Your task to perform on an android device: uninstall "Grab" Image 0: 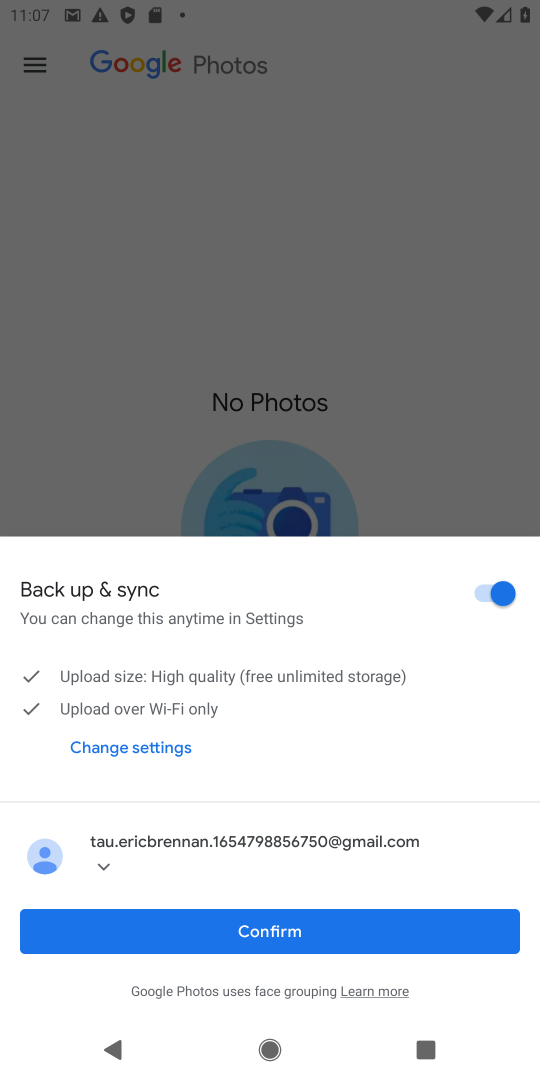
Step 0: press home button
Your task to perform on an android device: uninstall "Grab" Image 1: 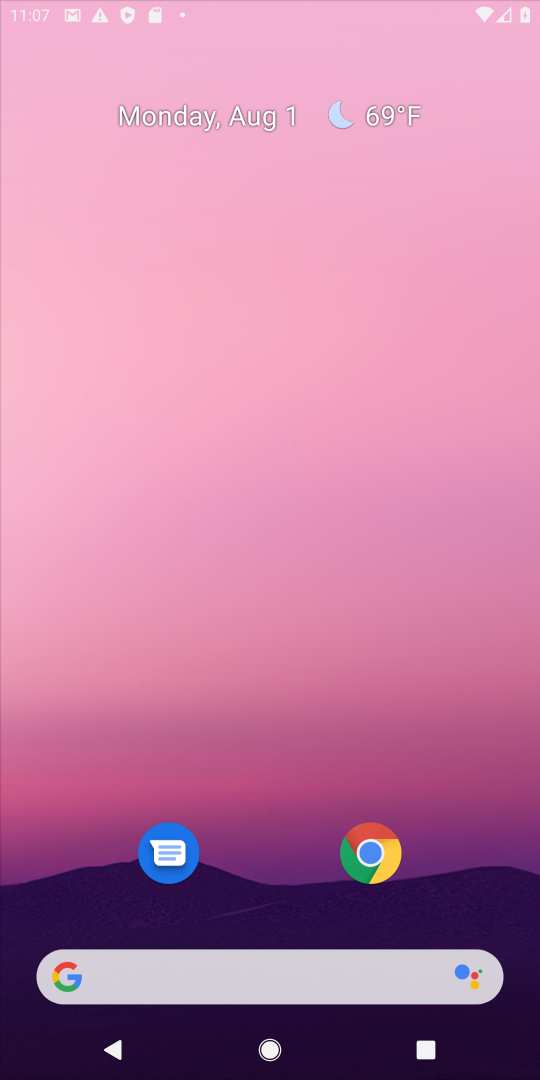
Step 1: drag from (369, 835) to (208, 104)
Your task to perform on an android device: uninstall "Grab" Image 2: 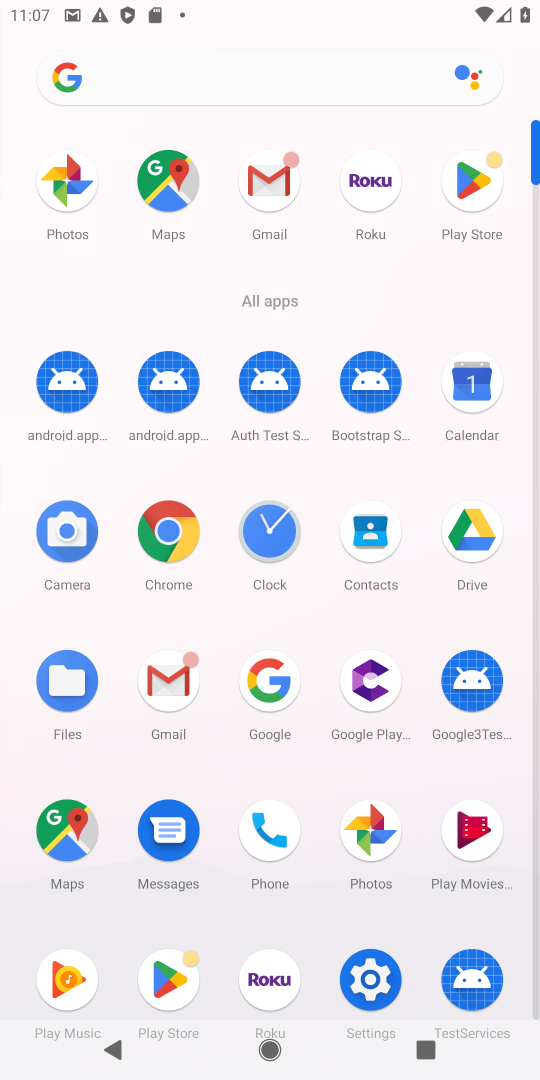
Step 2: click (467, 204)
Your task to perform on an android device: uninstall "Grab" Image 3: 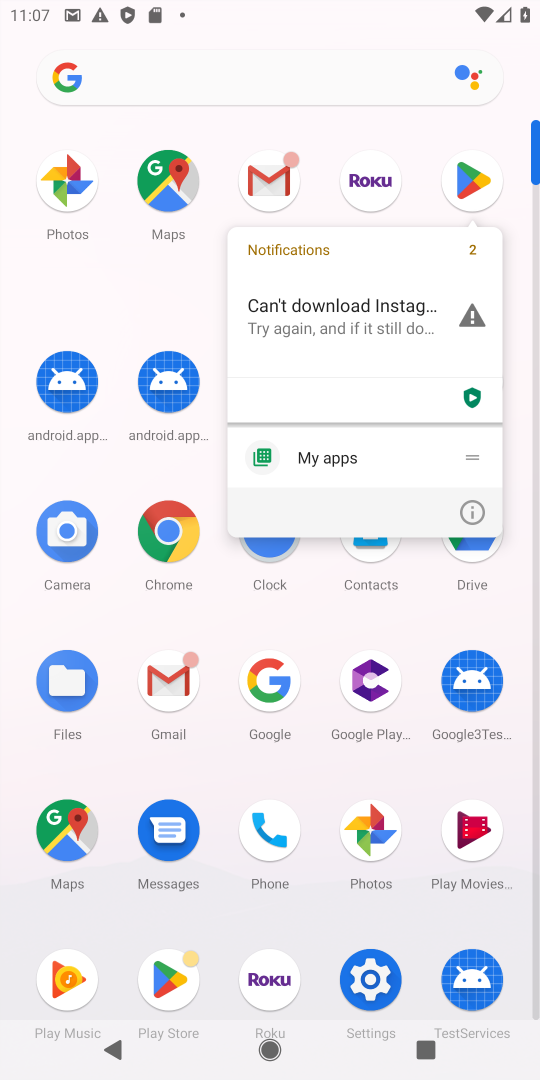
Step 3: click (454, 203)
Your task to perform on an android device: uninstall "Grab" Image 4: 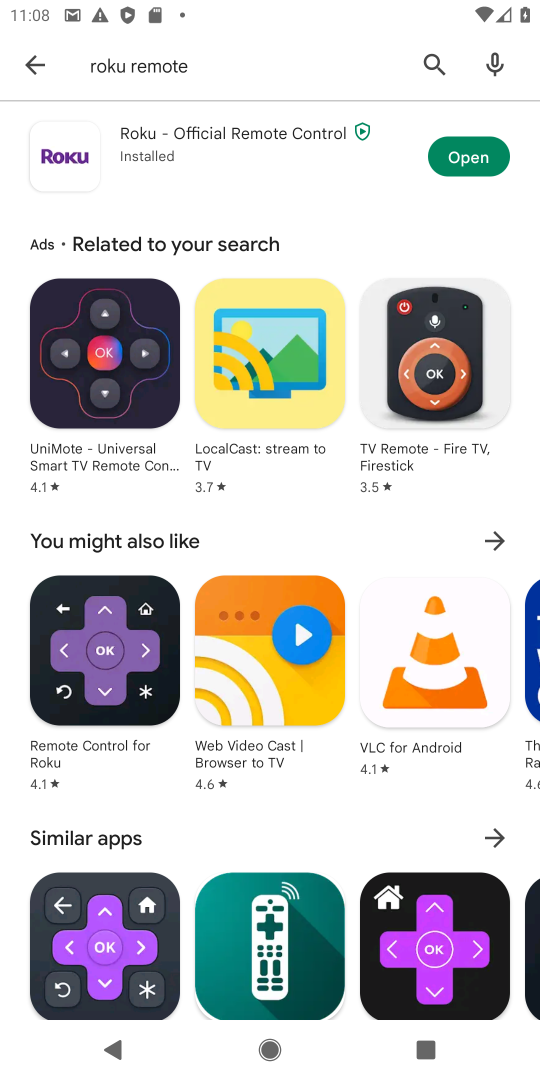
Step 4: click (444, 69)
Your task to perform on an android device: uninstall "Grab" Image 5: 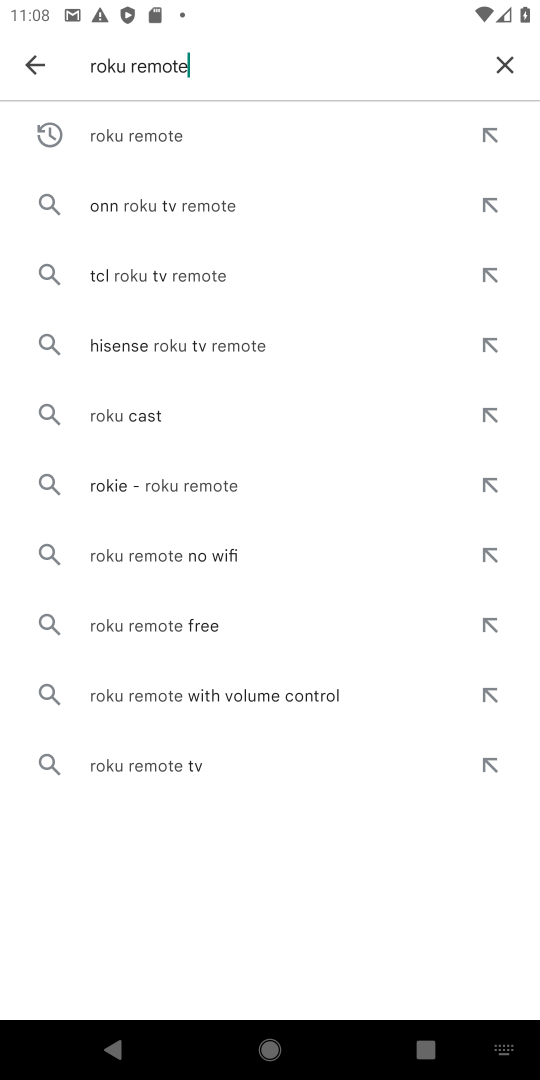
Step 5: click (481, 68)
Your task to perform on an android device: uninstall "Grab" Image 6: 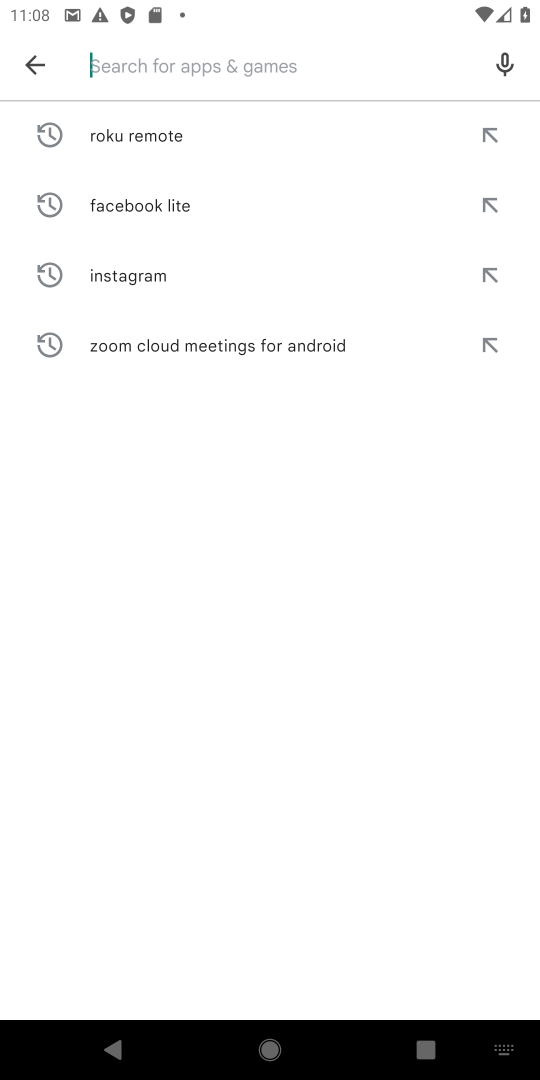
Step 6: type "Grab"
Your task to perform on an android device: uninstall "Grab" Image 7: 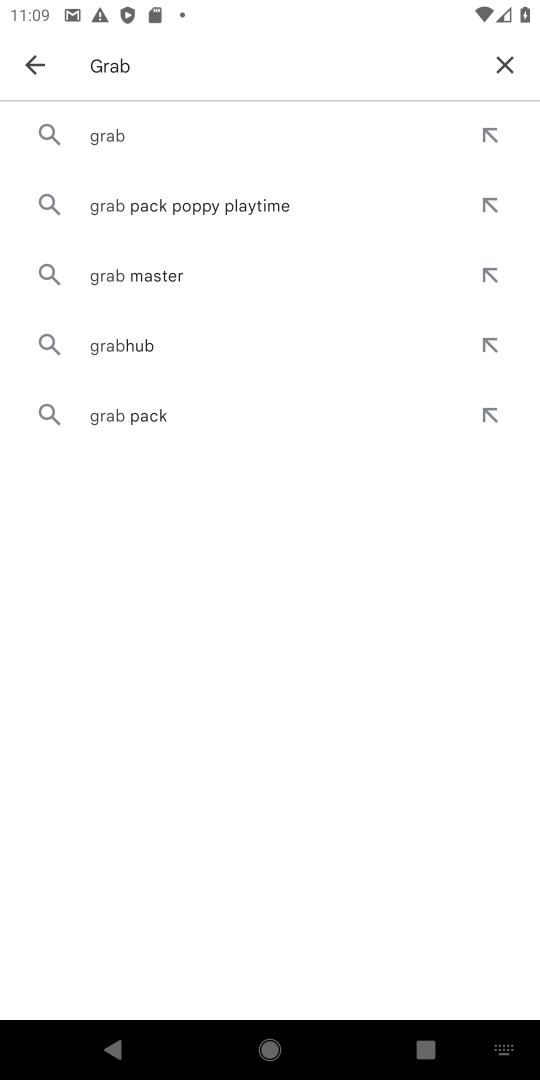
Step 7: click (125, 130)
Your task to perform on an android device: uninstall "Grab" Image 8: 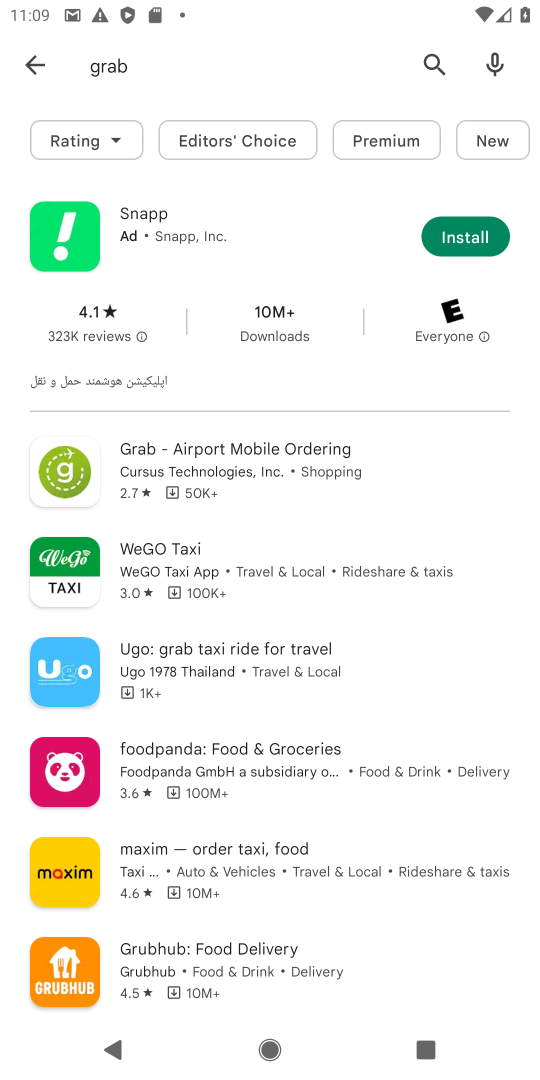
Step 8: click (136, 482)
Your task to perform on an android device: uninstall "Grab" Image 9: 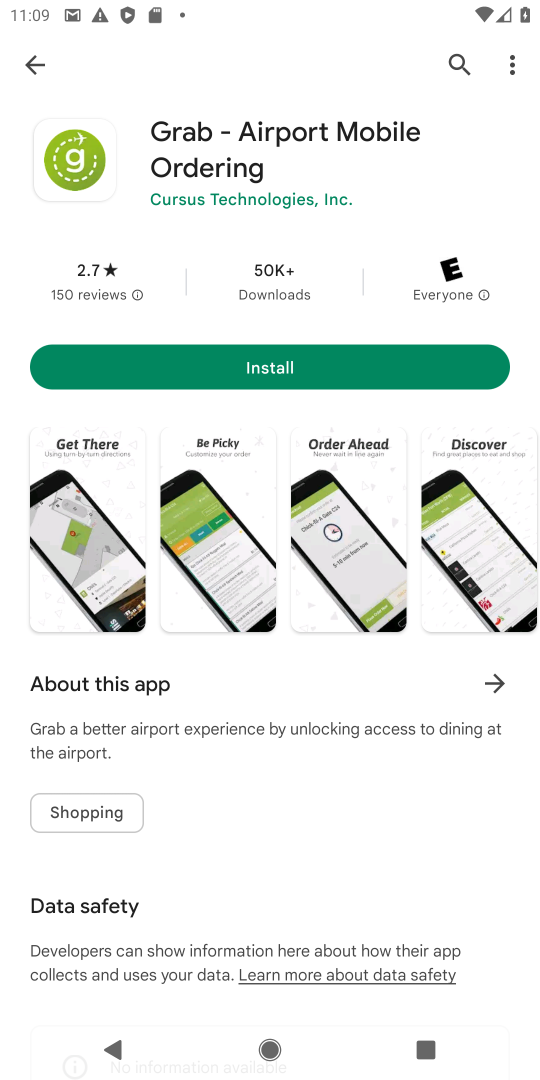
Step 9: task complete